Your task to perform on an android device: turn on notifications settings in the gmail app Image 0: 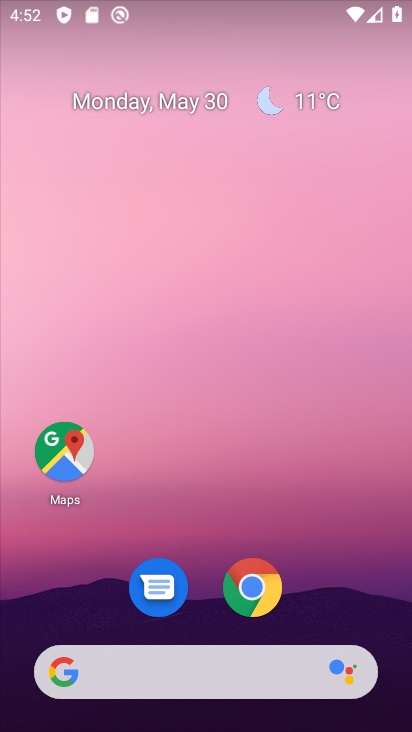
Step 0: drag from (314, 507) to (243, 36)
Your task to perform on an android device: turn on notifications settings in the gmail app Image 1: 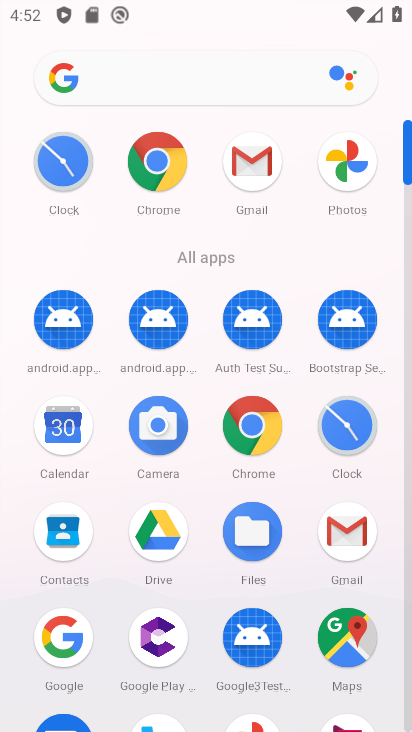
Step 1: drag from (22, 560) to (17, 215)
Your task to perform on an android device: turn on notifications settings in the gmail app Image 2: 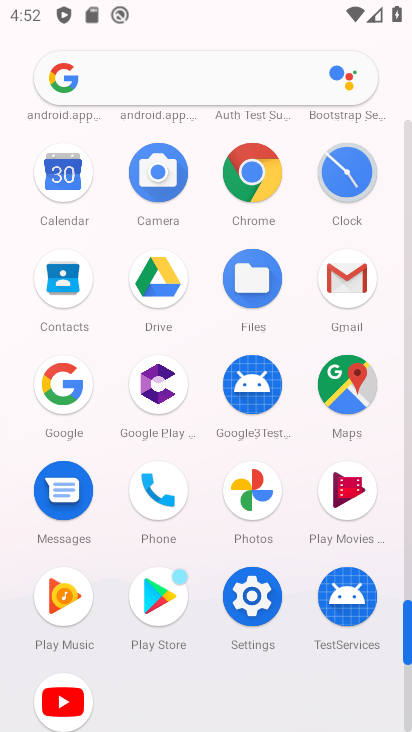
Step 2: click (342, 276)
Your task to perform on an android device: turn on notifications settings in the gmail app Image 3: 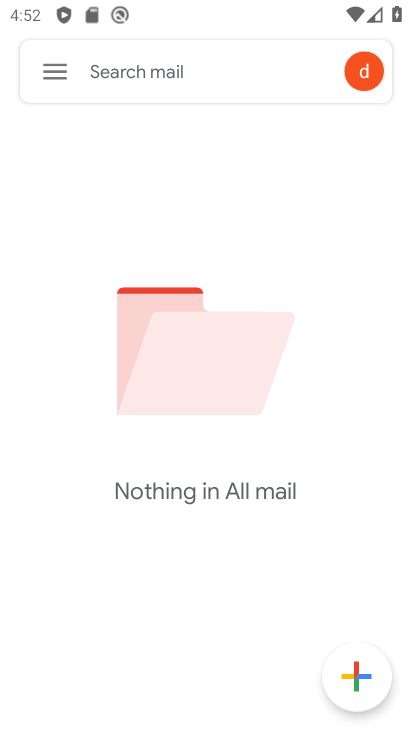
Step 3: click (50, 63)
Your task to perform on an android device: turn on notifications settings in the gmail app Image 4: 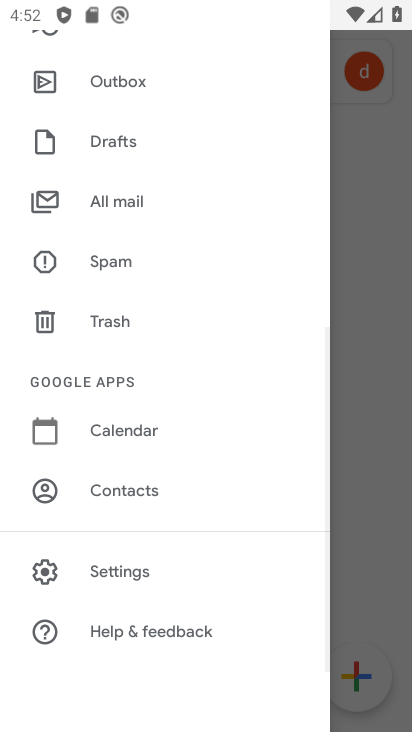
Step 4: click (119, 566)
Your task to perform on an android device: turn on notifications settings in the gmail app Image 5: 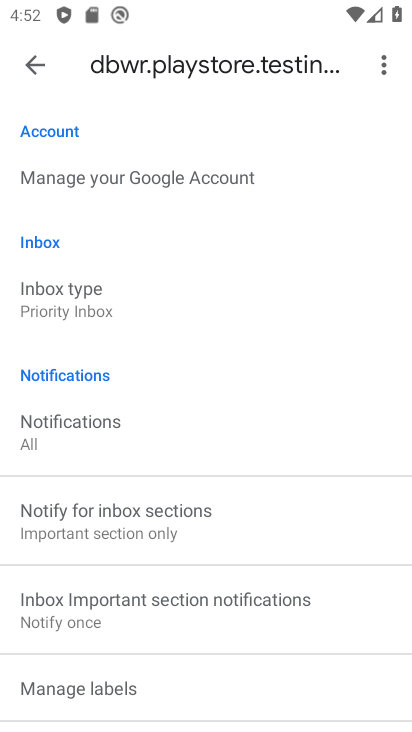
Step 5: drag from (208, 509) to (230, 174)
Your task to perform on an android device: turn on notifications settings in the gmail app Image 6: 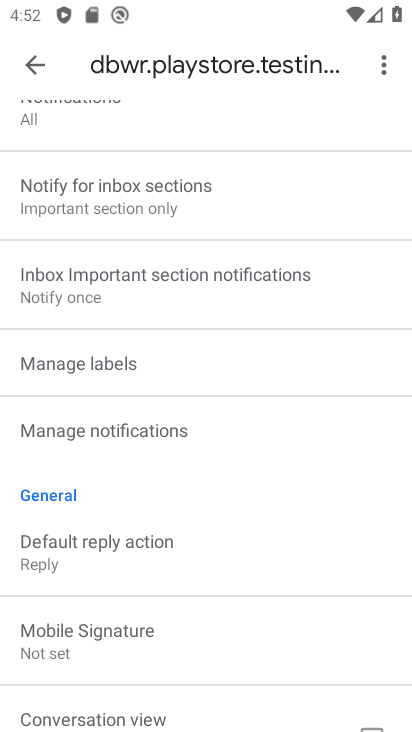
Step 6: click (155, 426)
Your task to perform on an android device: turn on notifications settings in the gmail app Image 7: 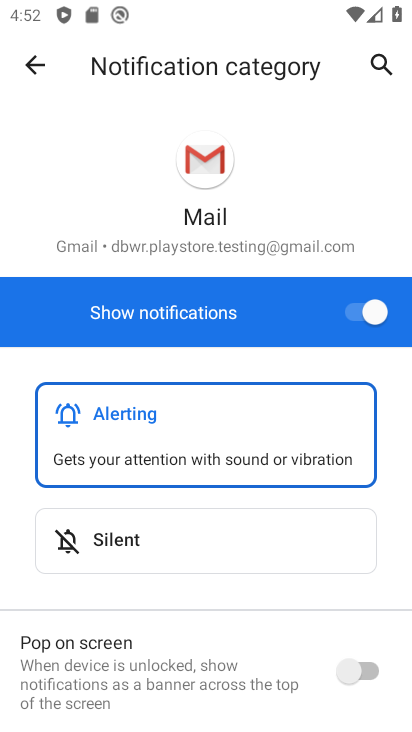
Step 7: drag from (241, 580) to (268, 249)
Your task to perform on an android device: turn on notifications settings in the gmail app Image 8: 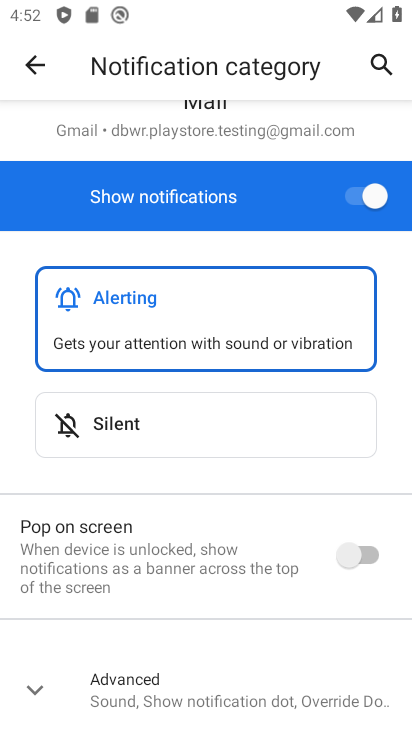
Step 8: click (35, 681)
Your task to perform on an android device: turn on notifications settings in the gmail app Image 9: 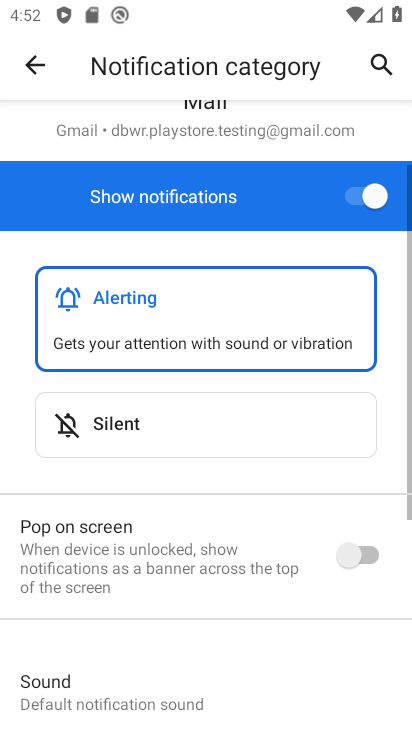
Step 9: task complete